Your task to perform on an android device: change the clock display to analog Image 0: 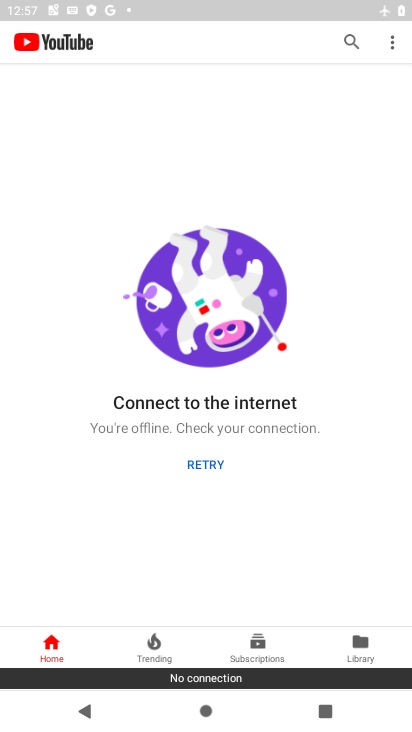
Step 0: press home button
Your task to perform on an android device: change the clock display to analog Image 1: 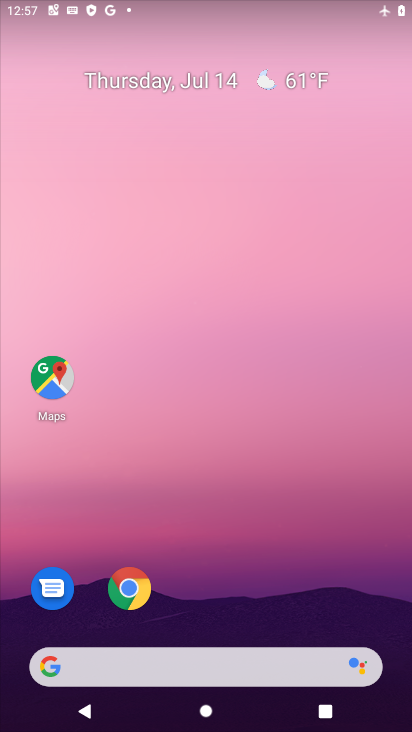
Step 1: drag from (199, 583) to (98, 10)
Your task to perform on an android device: change the clock display to analog Image 2: 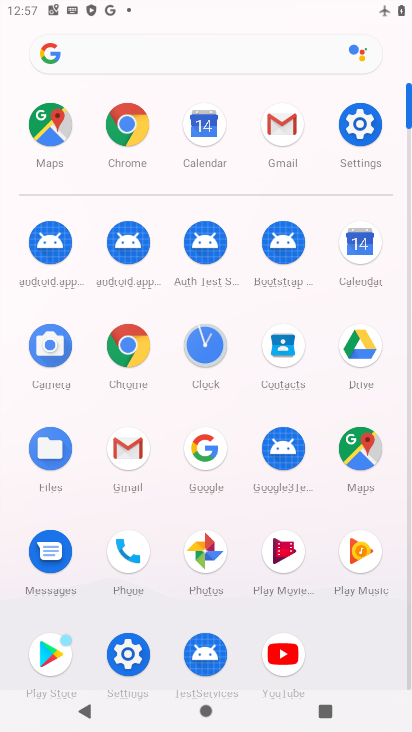
Step 2: click (212, 353)
Your task to perform on an android device: change the clock display to analog Image 3: 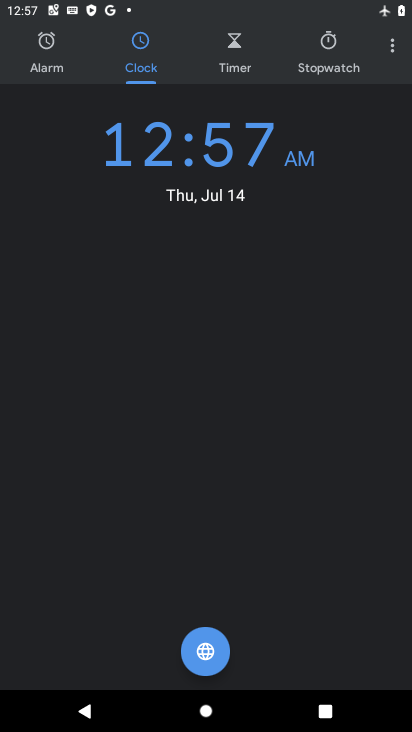
Step 3: click (396, 54)
Your task to perform on an android device: change the clock display to analog Image 4: 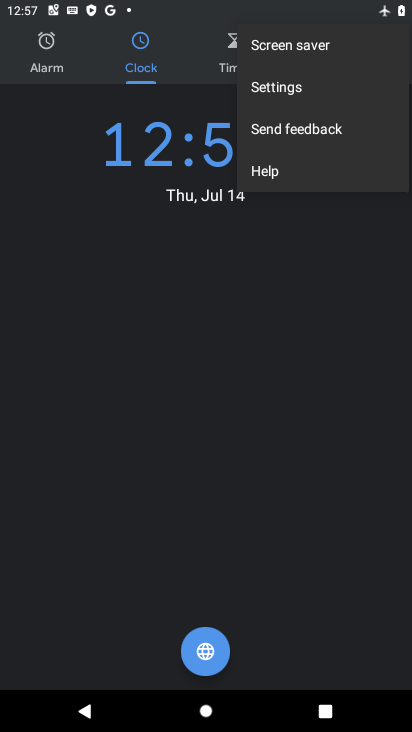
Step 4: click (299, 101)
Your task to perform on an android device: change the clock display to analog Image 5: 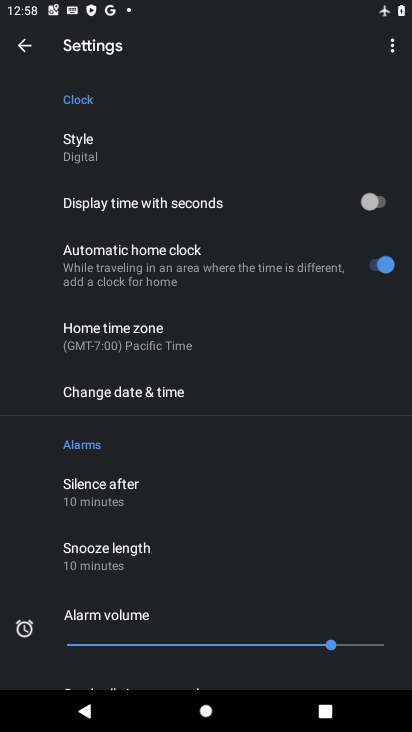
Step 5: click (96, 160)
Your task to perform on an android device: change the clock display to analog Image 6: 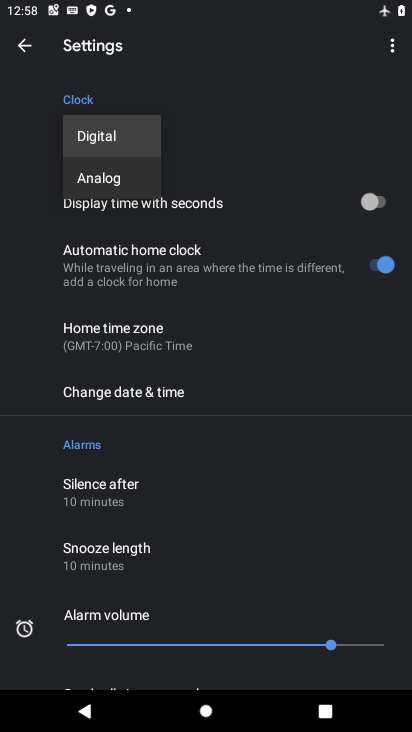
Step 6: click (113, 182)
Your task to perform on an android device: change the clock display to analog Image 7: 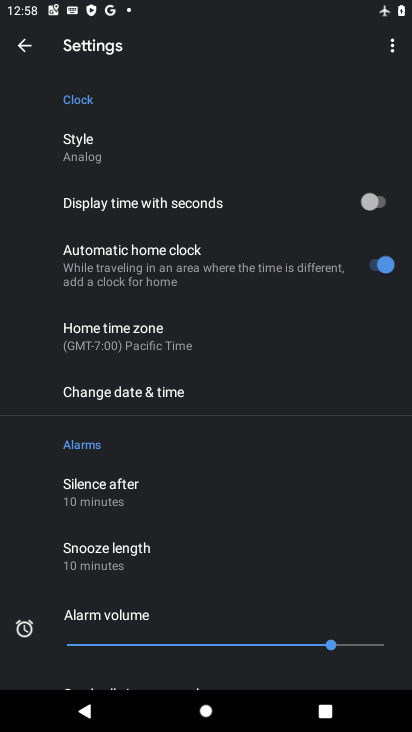
Step 7: task complete